Your task to perform on an android device: Go to Google maps Image 0: 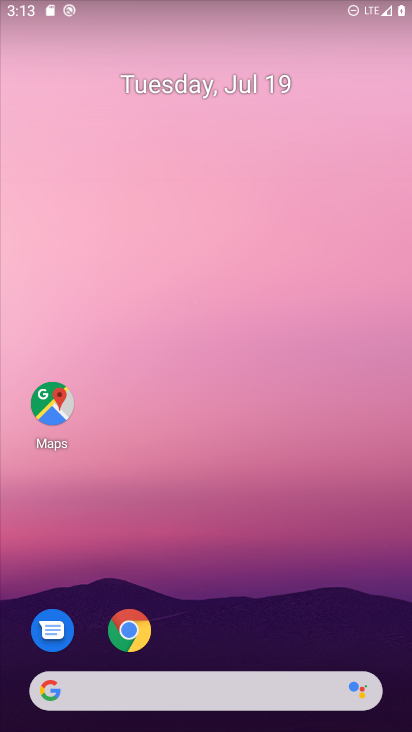
Step 0: click (51, 405)
Your task to perform on an android device: Go to Google maps Image 1: 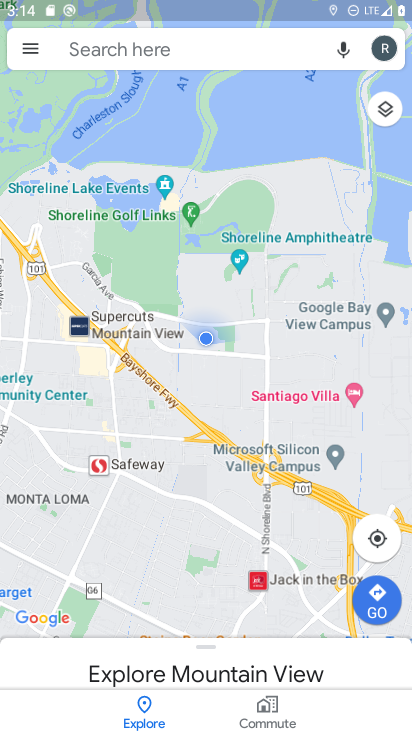
Step 1: task complete